Your task to perform on an android device: Clear the cart on costco.com. Add "apple airpods pro" to the cart on costco.com Image 0: 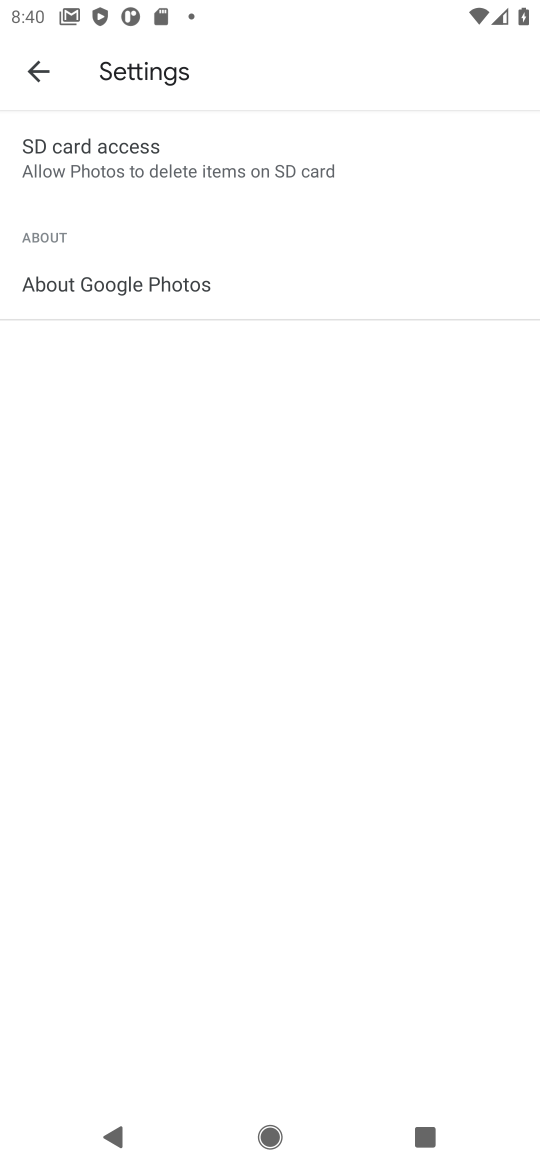
Step 0: press home button
Your task to perform on an android device: Clear the cart on costco.com. Add "apple airpods pro" to the cart on costco.com Image 1: 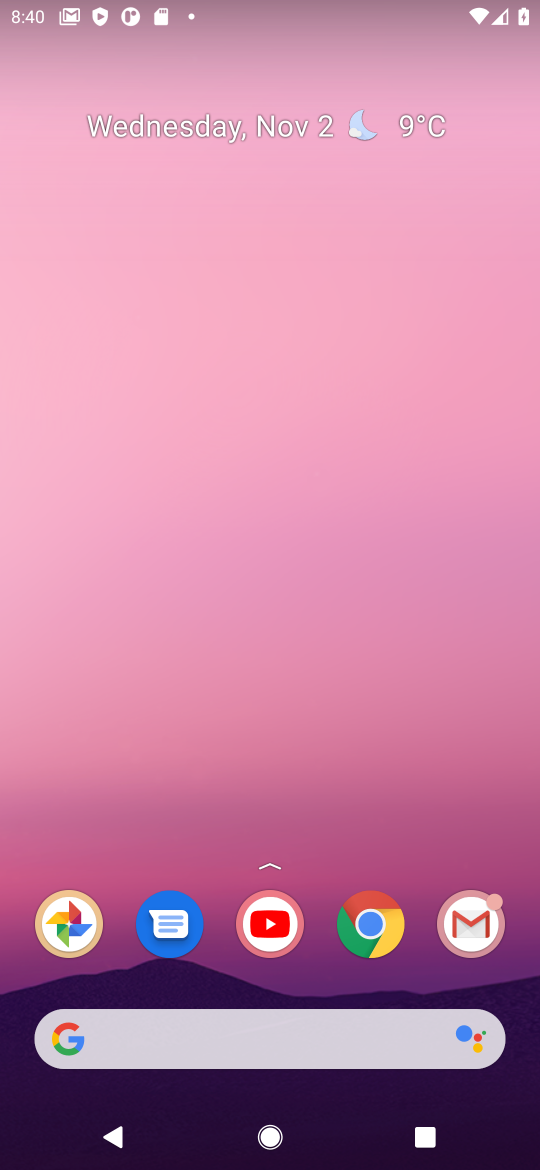
Step 1: click (389, 923)
Your task to perform on an android device: Clear the cart on costco.com. Add "apple airpods pro" to the cart on costco.com Image 2: 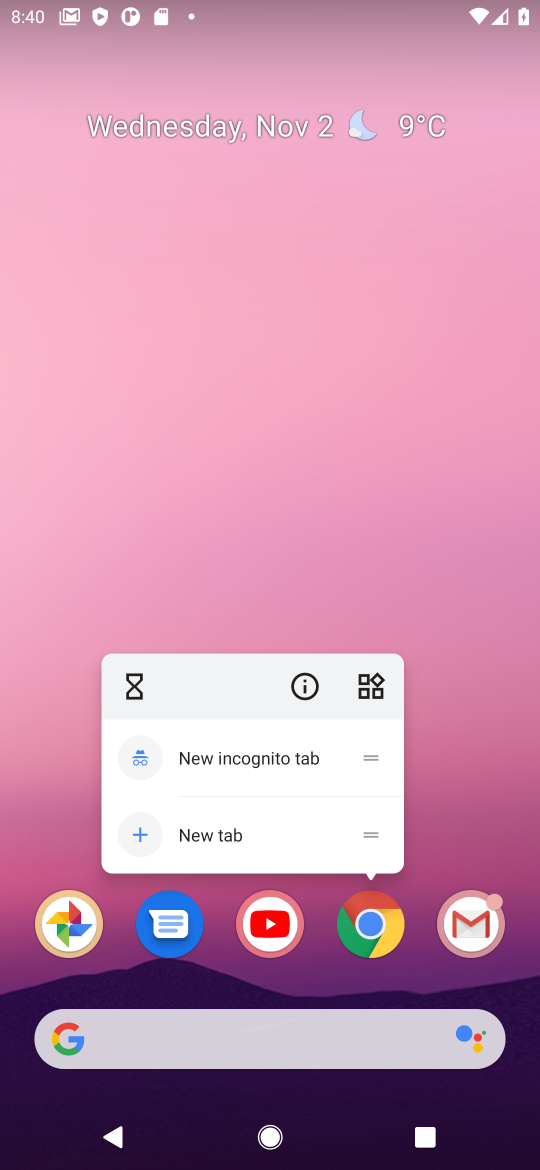
Step 2: click (389, 923)
Your task to perform on an android device: Clear the cart on costco.com. Add "apple airpods pro" to the cart on costco.com Image 3: 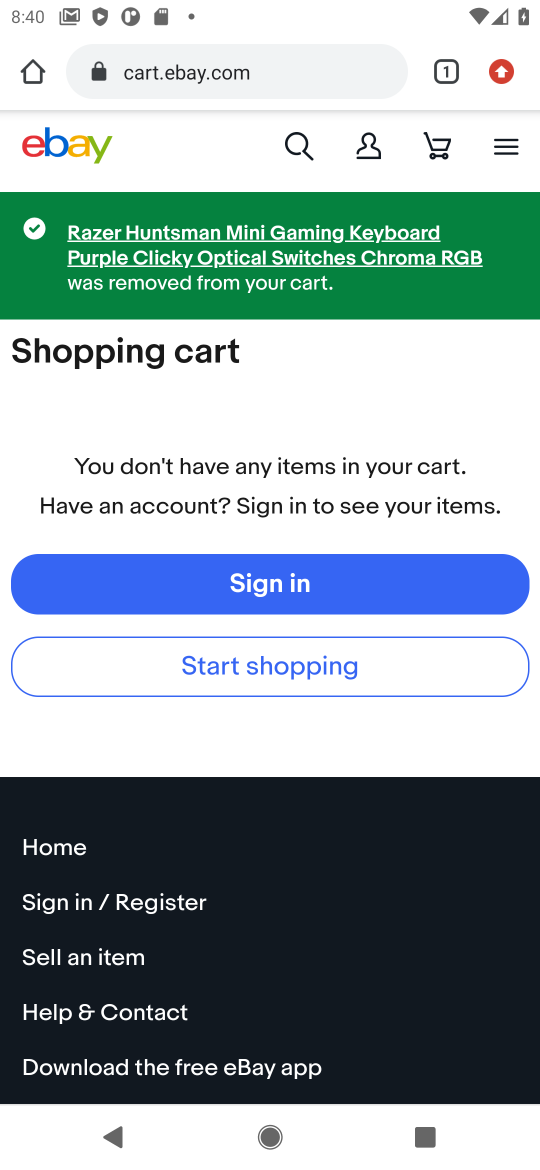
Step 3: click (164, 82)
Your task to perform on an android device: Clear the cart on costco.com. Add "apple airpods pro" to the cart on costco.com Image 4: 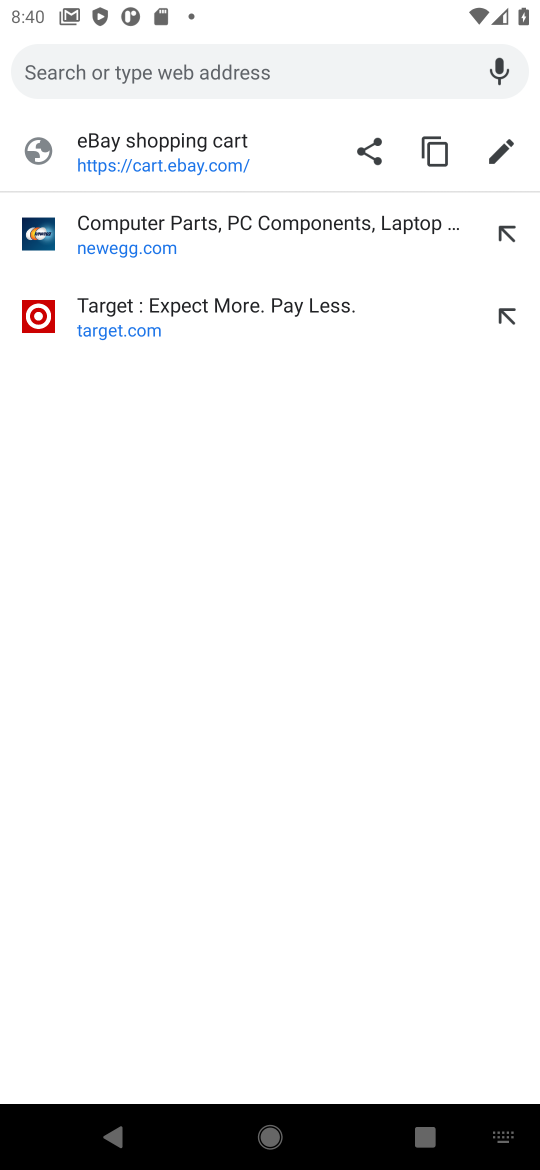
Step 4: type "costco"
Your task to perform on an android device: Clear the cart on costco.com. Add "apple airpods pro" to the cart on costco.com Image 5: 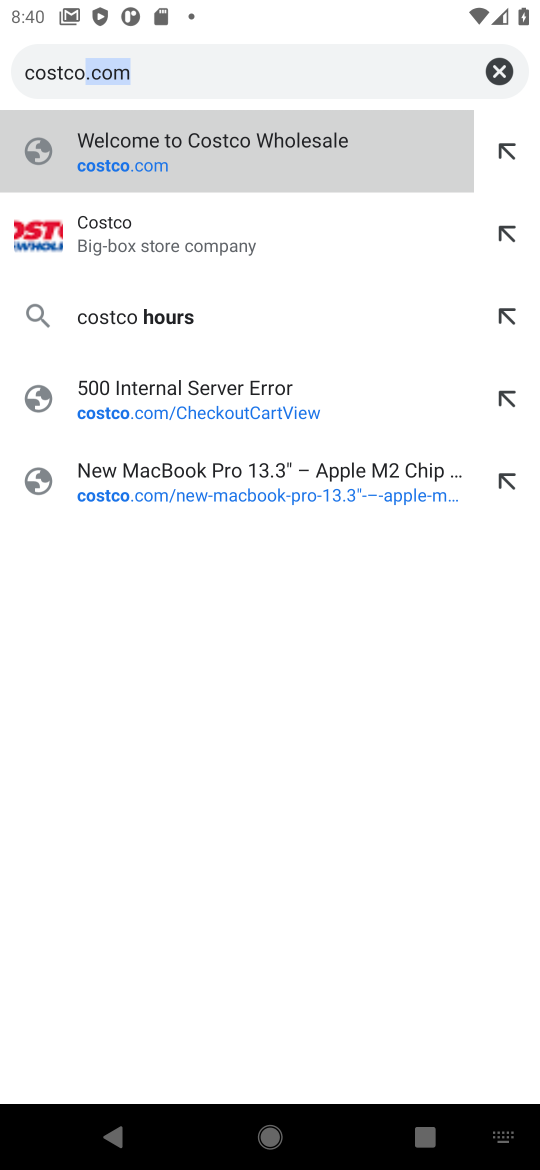
Step 5: type ""
Your task to perform on an android device: Clear the cart on costco.com. Add "apple airpods pro" to the cart on costco.com Image 6: 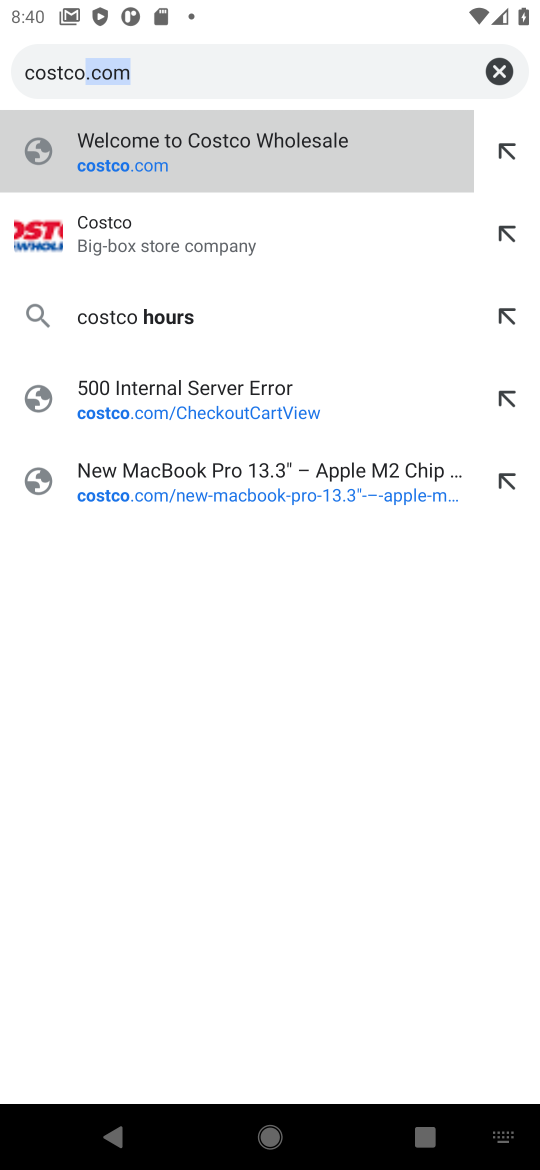
Step 6: click (160, 242)
Your task to perform on an android device: Clear the cart on costco.com. Add "apple airpods pro" to the cart on costco.com Image 7: 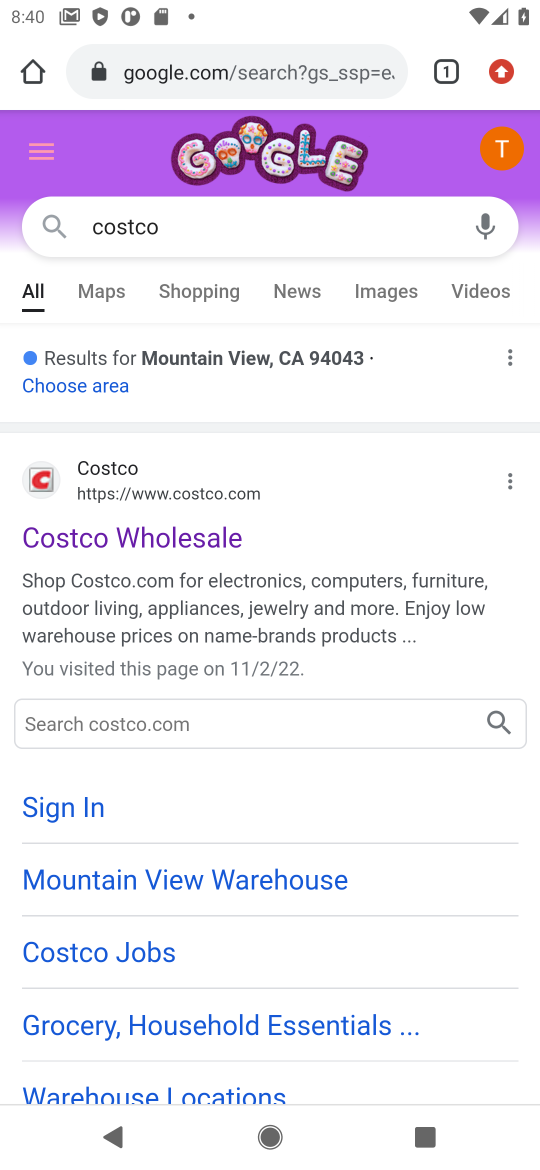
Step 7: click (83, 533)
Your task to perform on an android device: Clear the cart on costco.com. Add "apple airpods pro" to the cart on costco.com Image 8: 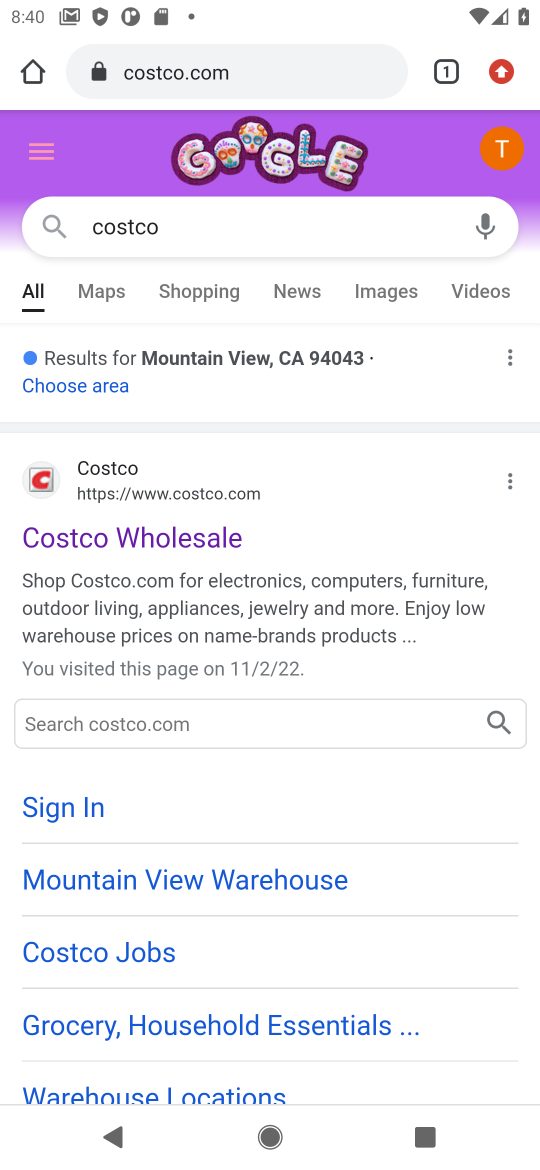
Step 8: click (89, 540)
Your task to perform on an android device: Clear the cart on costco.com. Add "apple airpods pro" to the cart on costco.com Image 9: 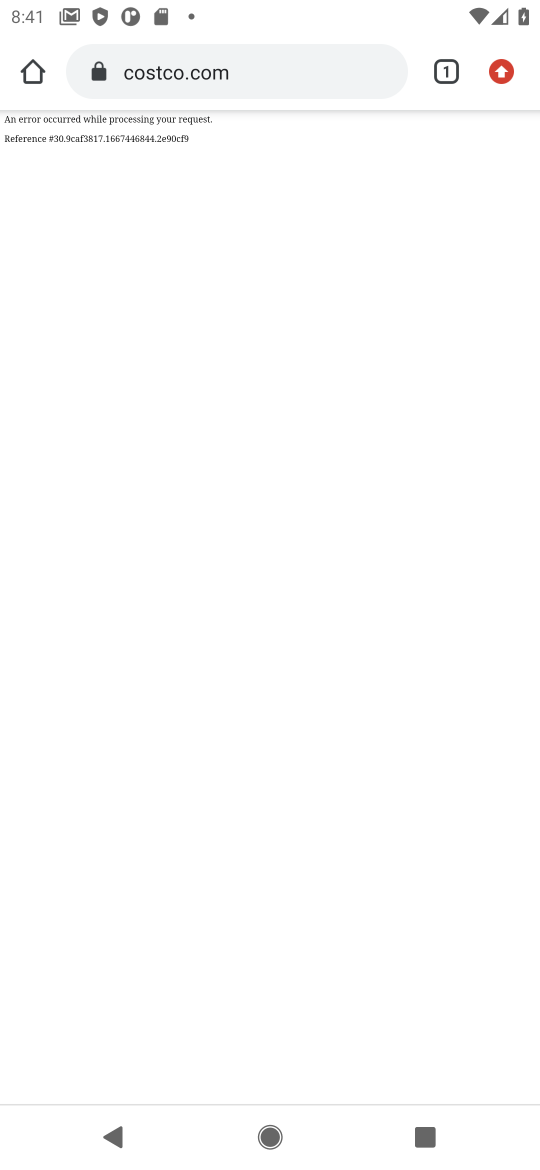
Step 9: task complete